Your task to perform on an android device: Open calendar and show me the third week of next month Image 0: 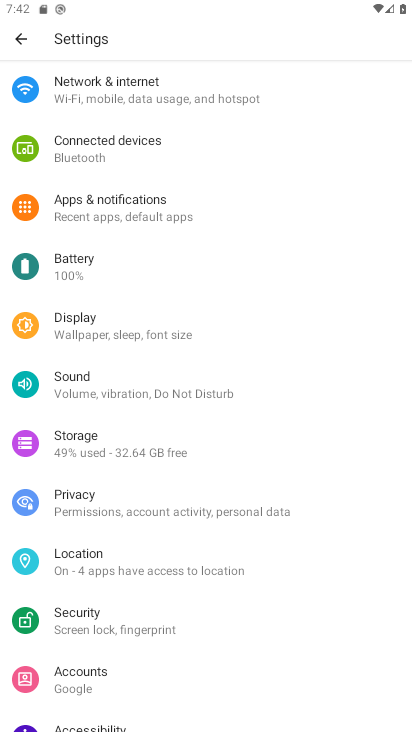
Step 0: press home button
Your task to perform on an android device: Open calendar and show me the third week of next month Image 1: 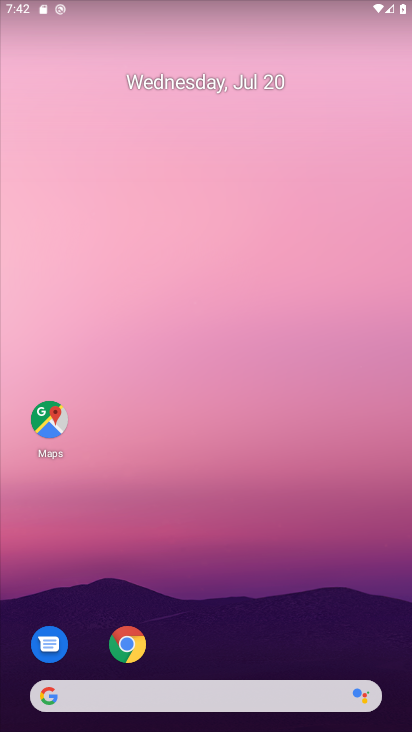
Step 1: drag from (198, 722) to (194, 405)
Your task to perform on an android device: Open calendar and show me the third week of next month Image 2: 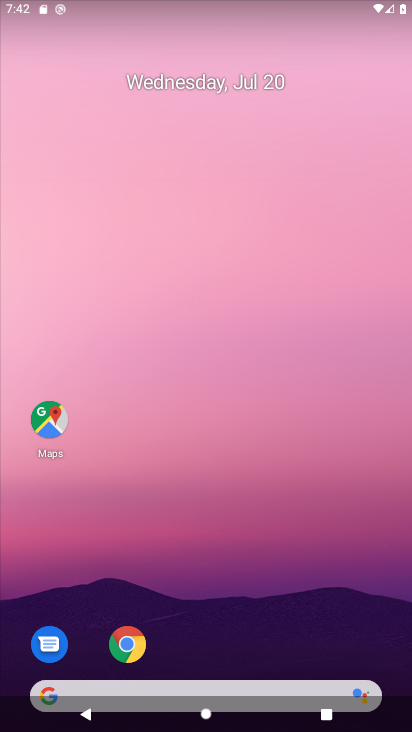
Step 2: drag from (199, 704) to (218, 238)
Your task to perform on an android device: Open calendar and show me the third week of next month Image 3: 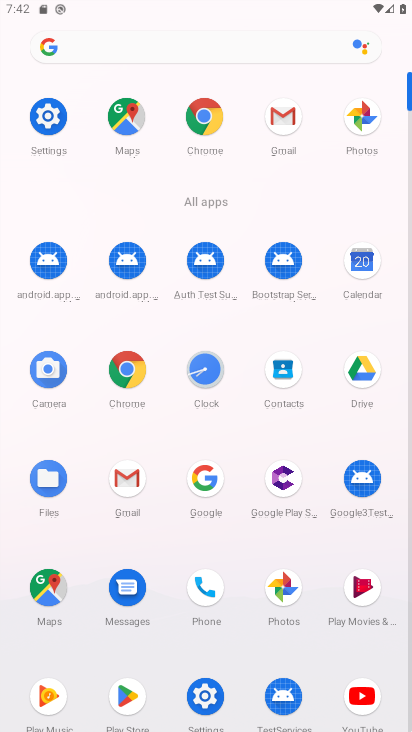
Step 3: click (366, 258)
Your task to perform on an android device: Open calendar and show me the third week of next month Image 4: 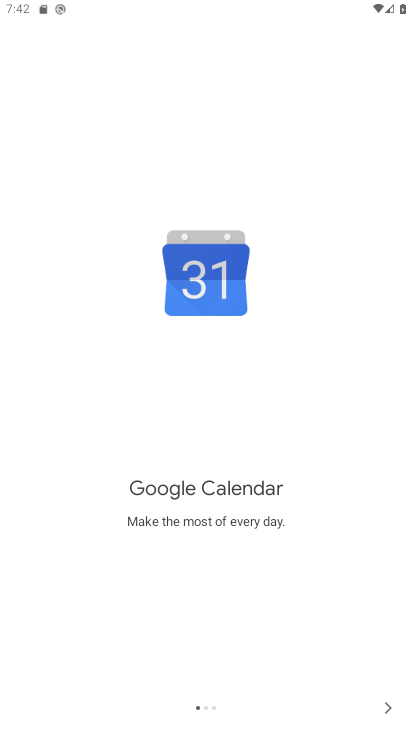
Step 4: click (389, 709)
Your task to perform on an android device: Open calendar and show me the third week of next month Image 5: 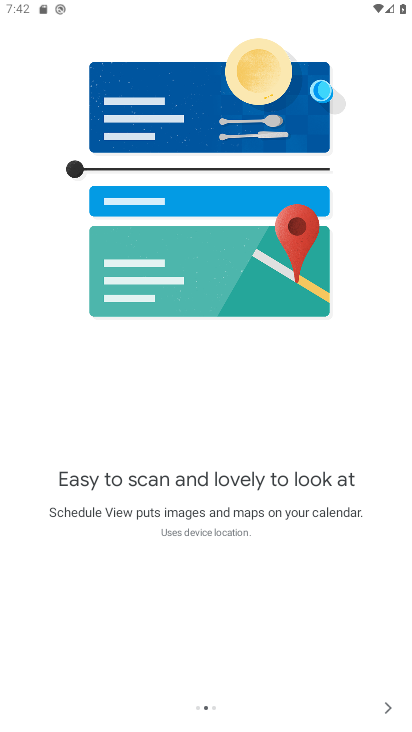
Step 5: click (389, 709)
Your task to perform on an android device: Open calendar and show me the third week of next month Image 6: 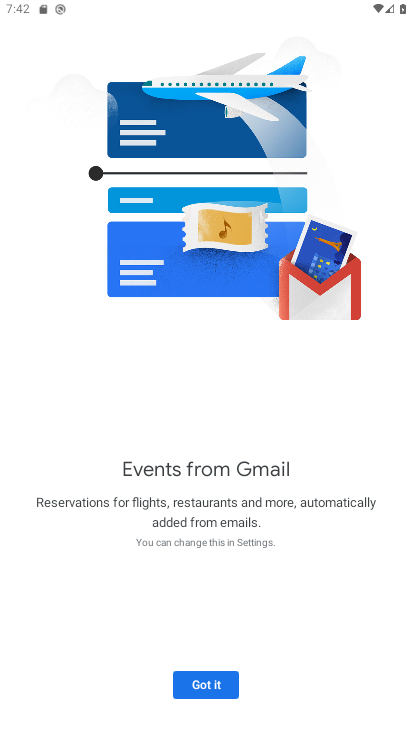
Step 6: click (189, 687)
Your task to perform on an android device: Open calendar and show me the third week of next month Image 7: 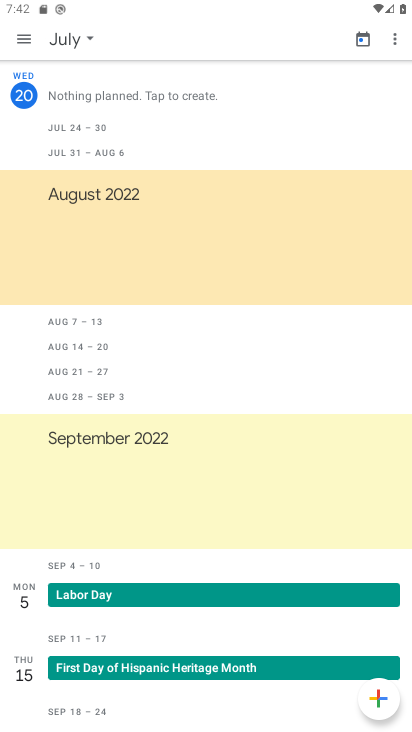
Step 7: click (80, 48)
Your task to perform on an android device: Open calendar and show me the third week of next month Image 8: 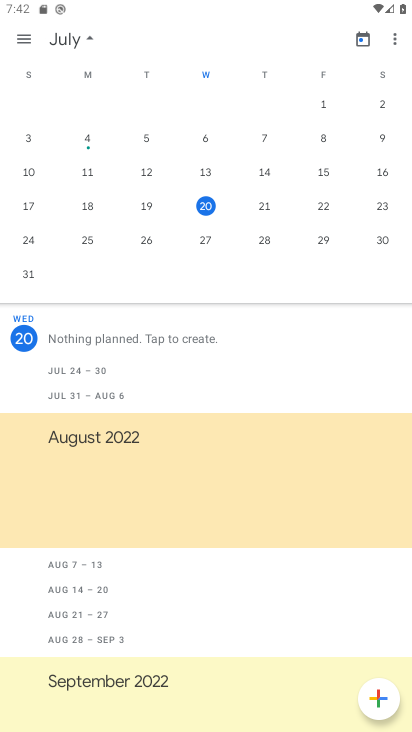
Step 8: drag from (291, 244) to (42, 277)
Your task to perform on an android device: Open calendar and show me the third week of next month Image 9: 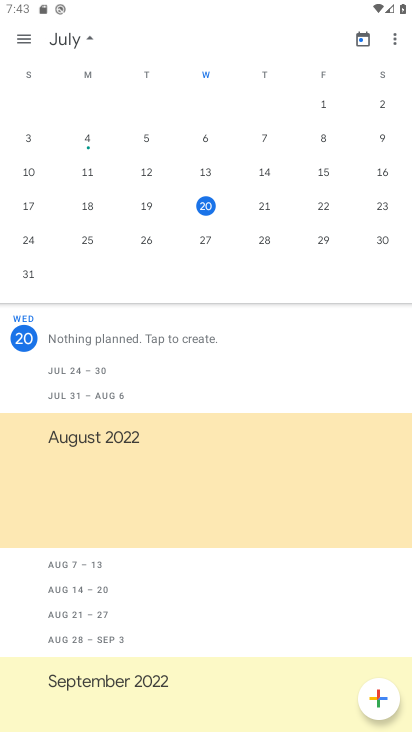
Step 9: drag from (318, 171) to (1, 239)
Your task to perform on an android device: Open calendar and show me the third week of next month Image 10: 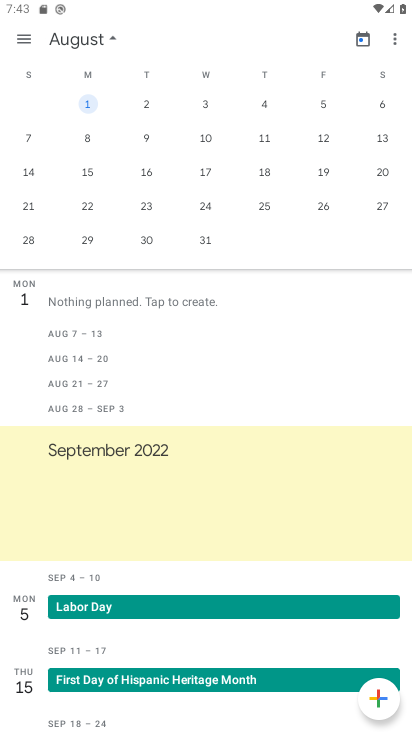
Step 10: click (18, 169)
Your task to perform on an android device: Open calendar and show me the third week of next month Image 11: 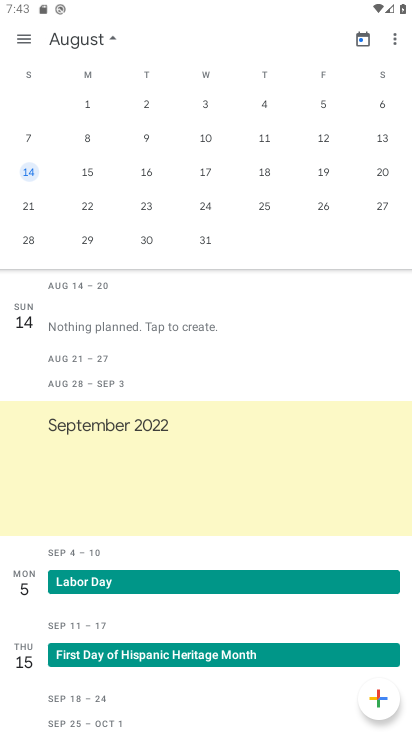
Step 11: task complete